Your task to perform on an android device: open app "DuckDuckGo Privacy Browser" (install if not already installed) and enter user name: "cleaving@outlook.com" and password: "freighters" Image 0: 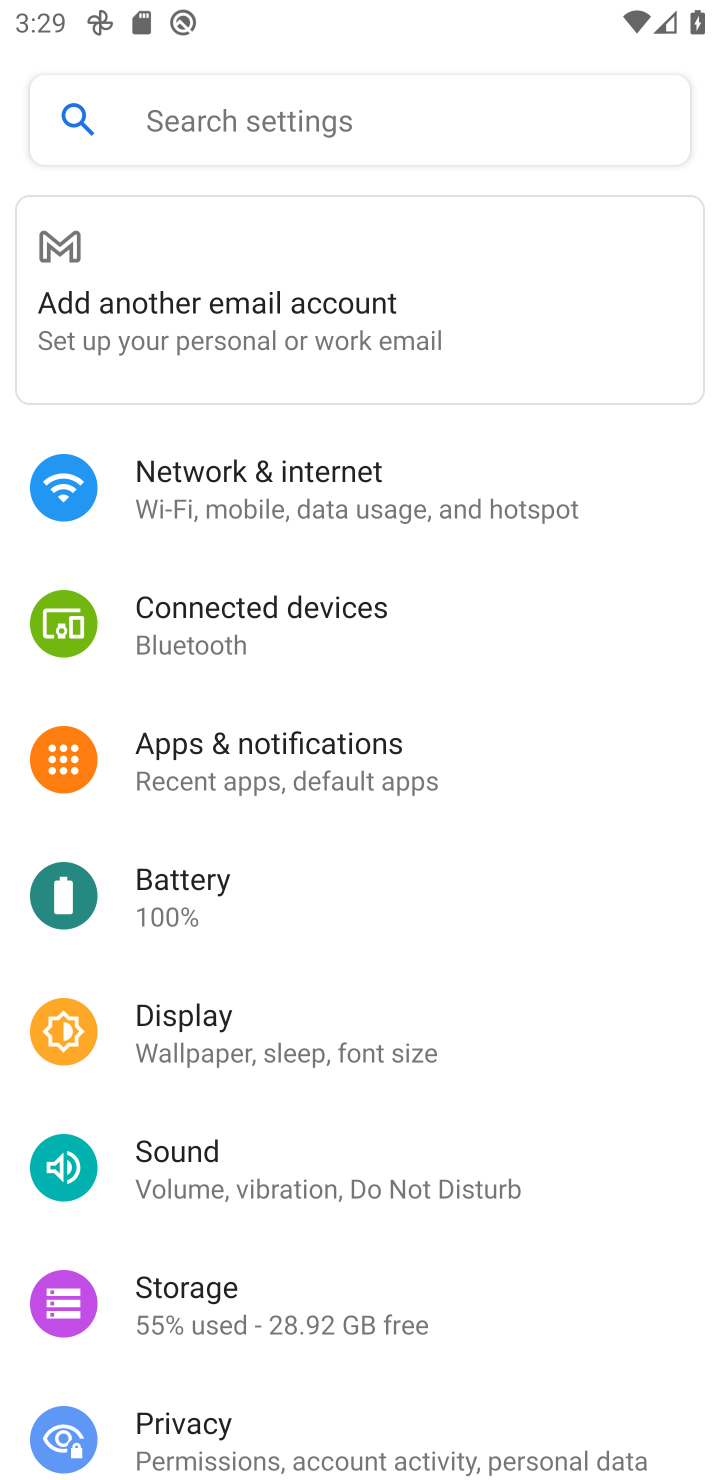
Step 0: press home button
Your task to perform on an android device: open app "DuckDuckGo Privacy Browser" (install if not already installed) and enter user name: "cleaving@outlook.com" and password: "freighters" Image 1: 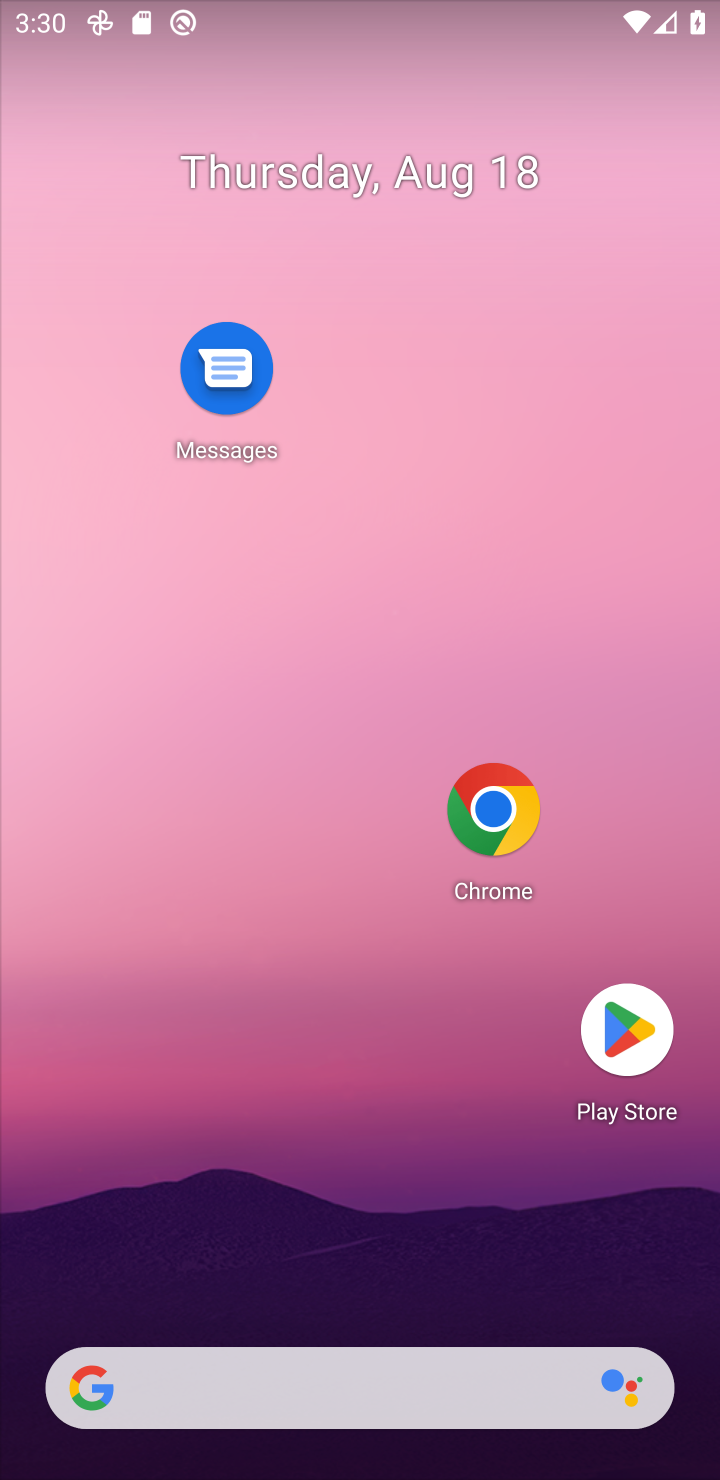
Step 1: click (590, 1041)
Your task to perform on an android device: open app "DuckDuckGo Privacy Browser" (install if not already installed) and enter user name: "cleaving@outlook.com" and password: "freighters" Image 2: 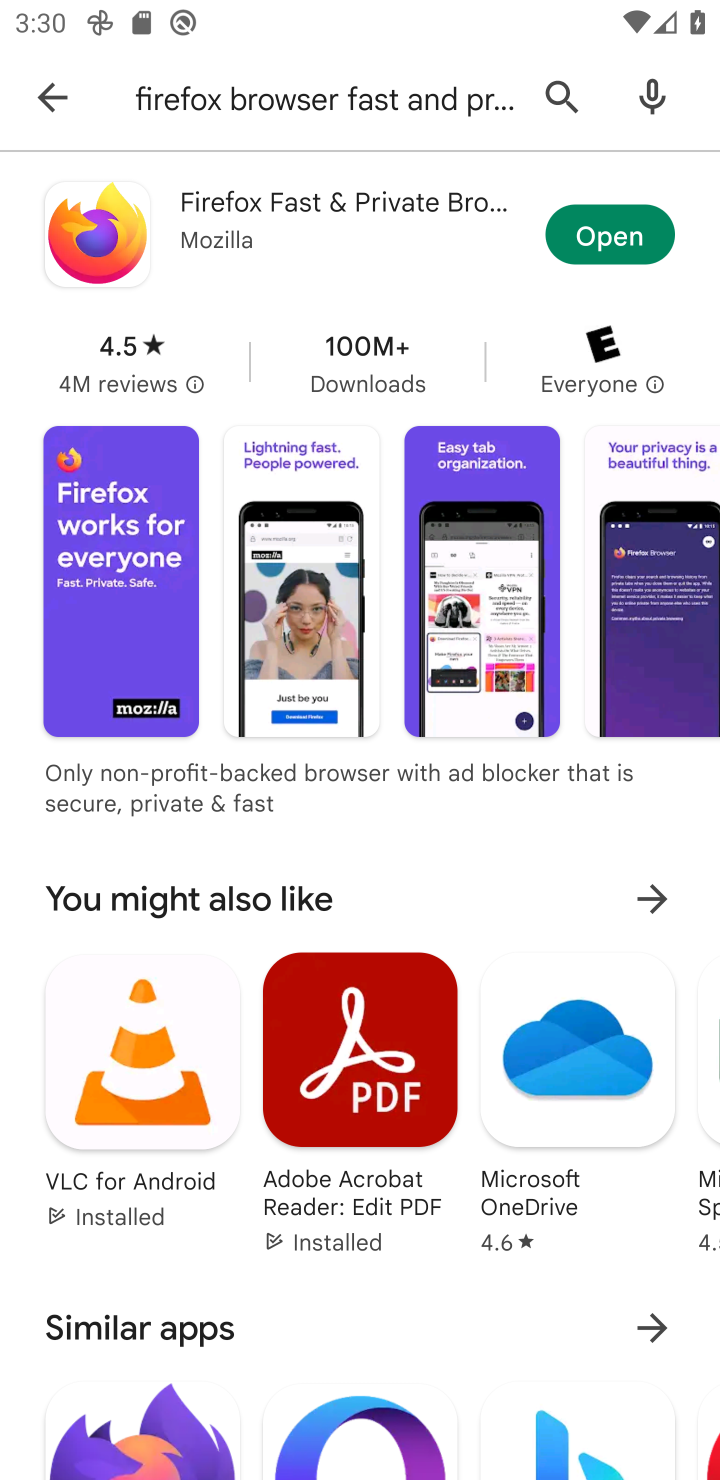
Step 2: click (554, 79)
Your task to perform on an android device: open app "DuckDuckGo Privacy Browser" (install if not already installed) and enter user name: "cleaving@outlook.com" and password: "freighters" Image 3: 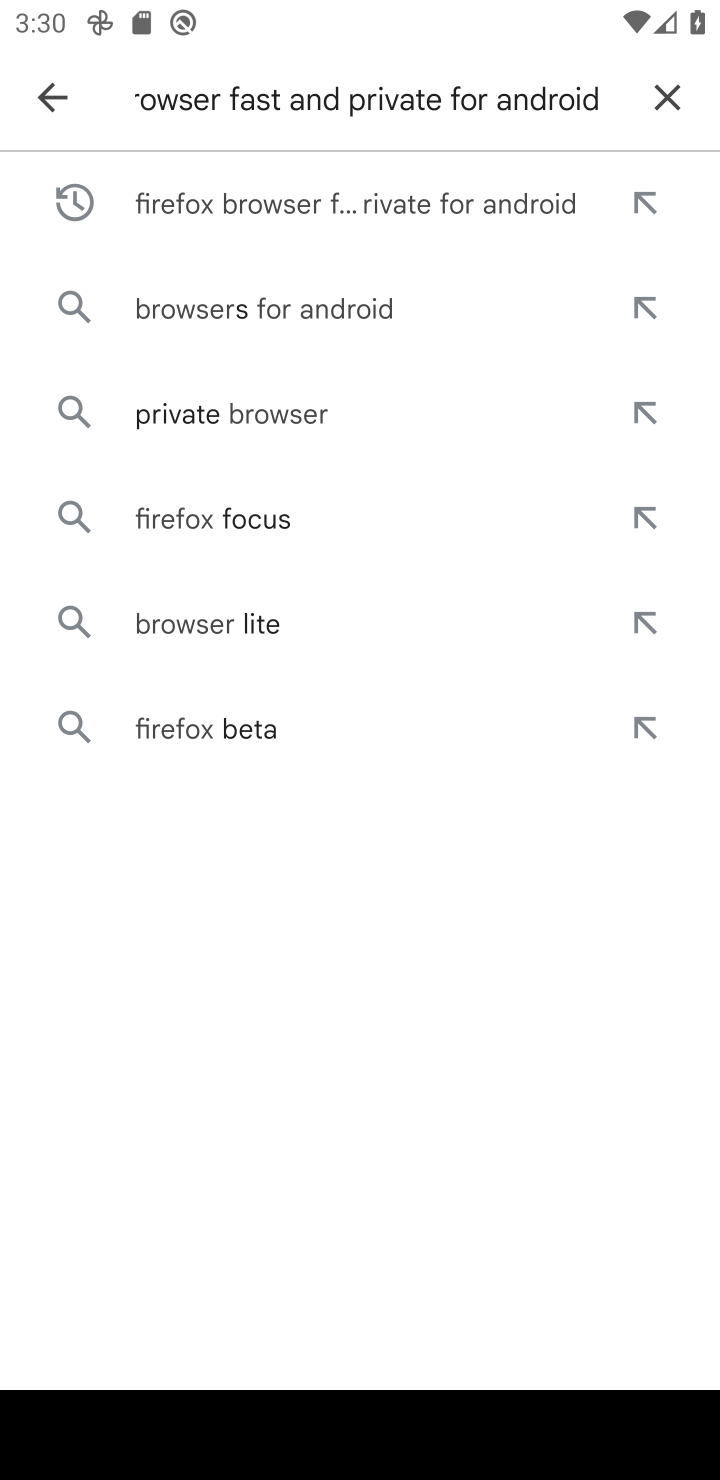
Step 3: click (680, 73)
Your task to perform on an android device: open app "DuckDuckGo Privacy Browser" (install if not already installed) and enter user name: "cleaving@outlook.com" and password: "freighters" Image 4: 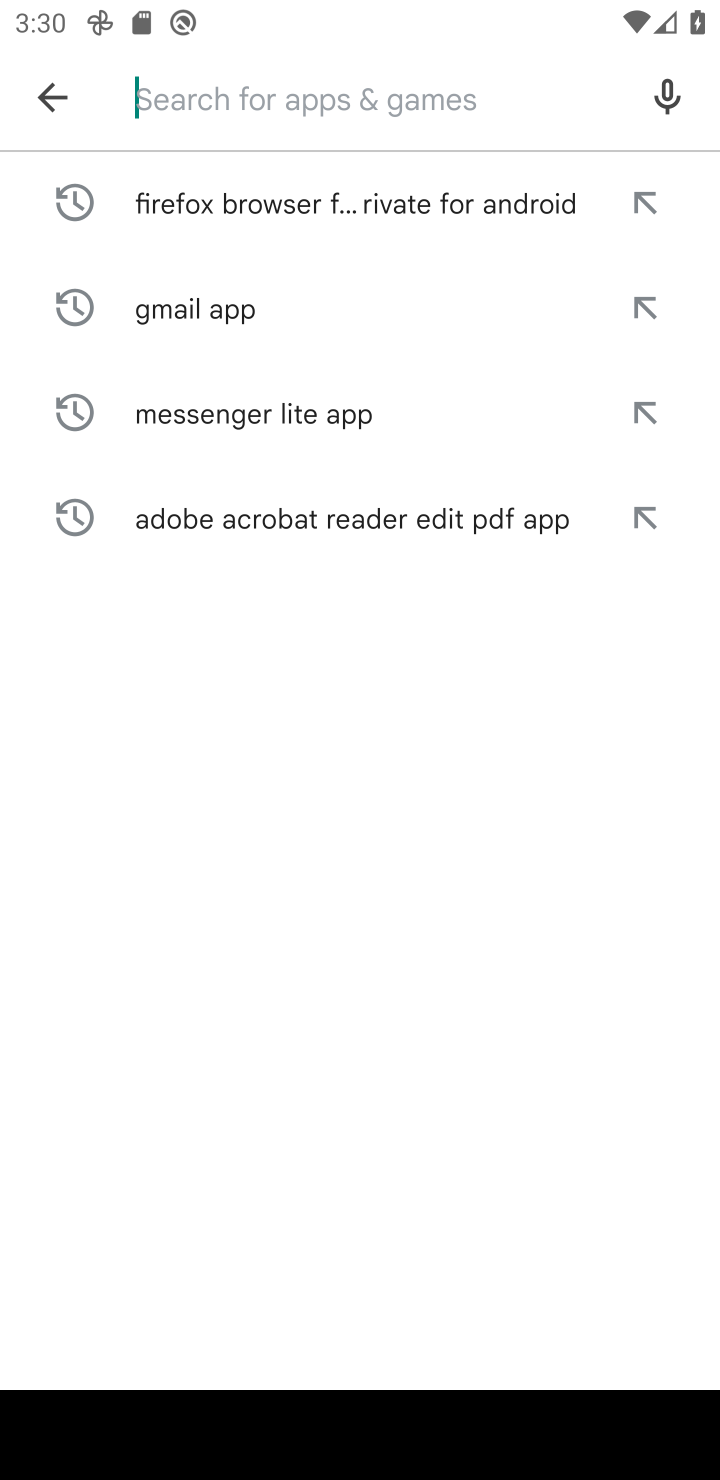
Step 4: click (296, 105)
Your task to perform on an android device: open app "DuckDuckGo Privacy Browser" (install if not already installed) and enter user name: "cleaving@outlook.com" and password: "freighters" Image 5: 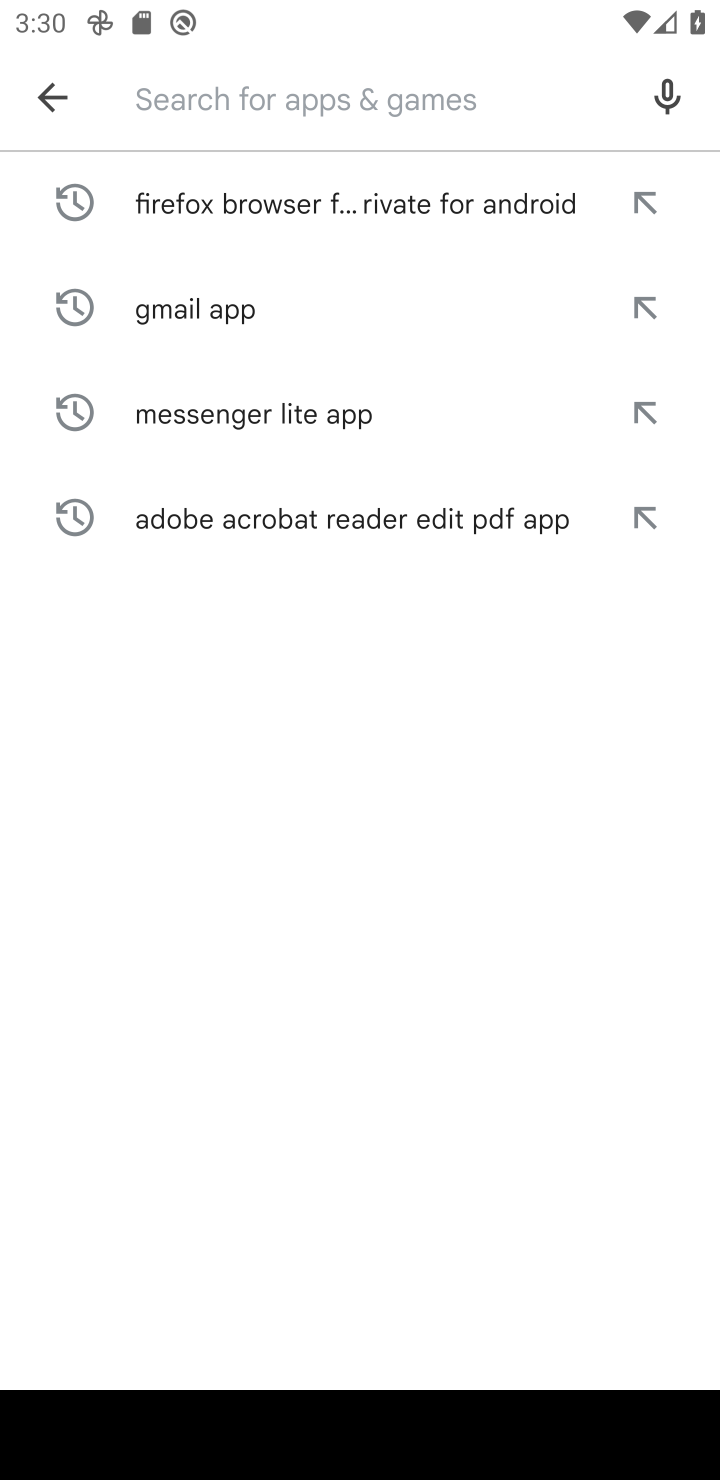
Step 5: type "DuckDuckGo Privacy Browser "
Your task to perform on an android device: open app "DuckDuckGo Privacy Browser" (install if not already installed) and enter user name: "cleaving@outlook.com" and password: "freighters" Image 6: 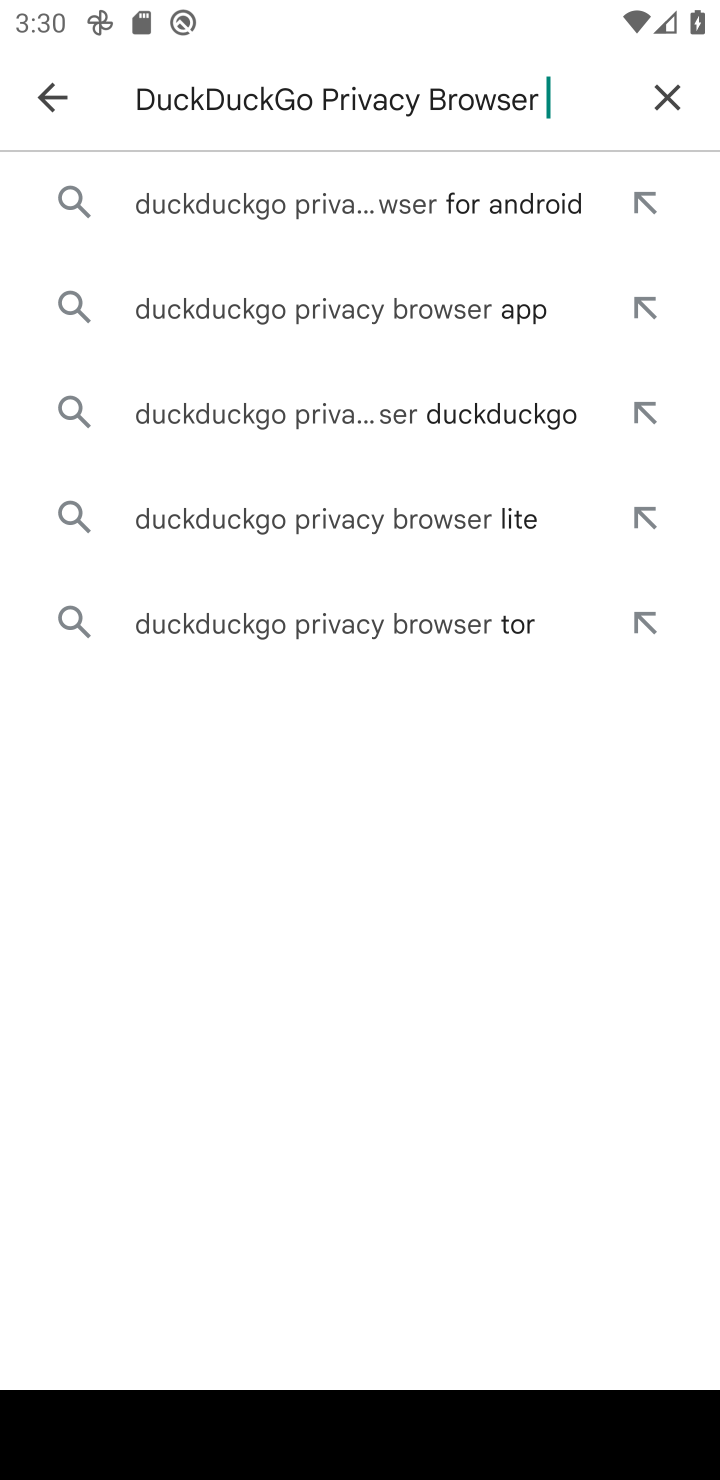
Step 6: click (318, 193)
Your task to perform on an android device: open app "DuckDuckGo Privacy Browser" (install if not already installed) and enter user name: "cleaving@outlook.com" and password: "freighters" Image 7: 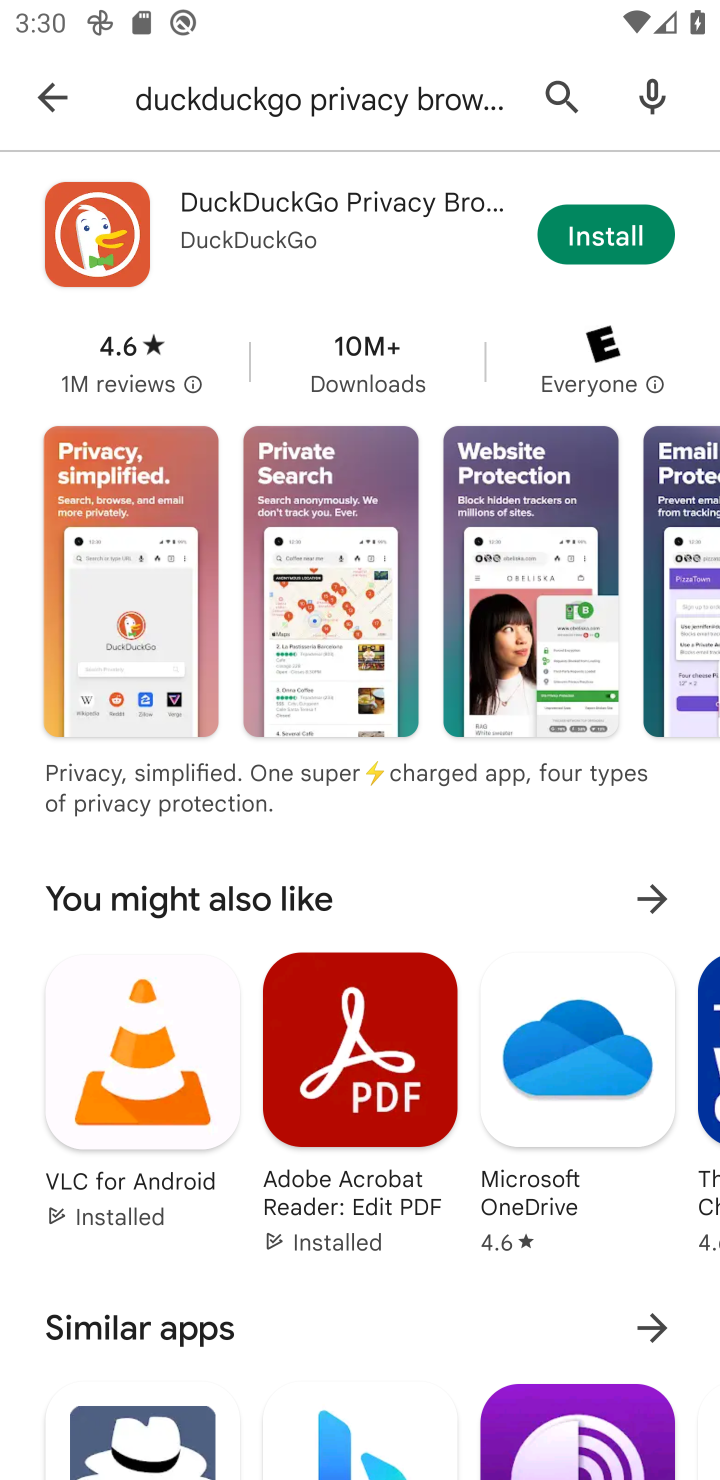
Step 7: click (612, 225)
Your task to perform on an android device: open app "DuckDuckGo Privacy Browser" (install if not already installed) and enter user name: "cleaving@outlook.com" and password: "freighters" Image 8: 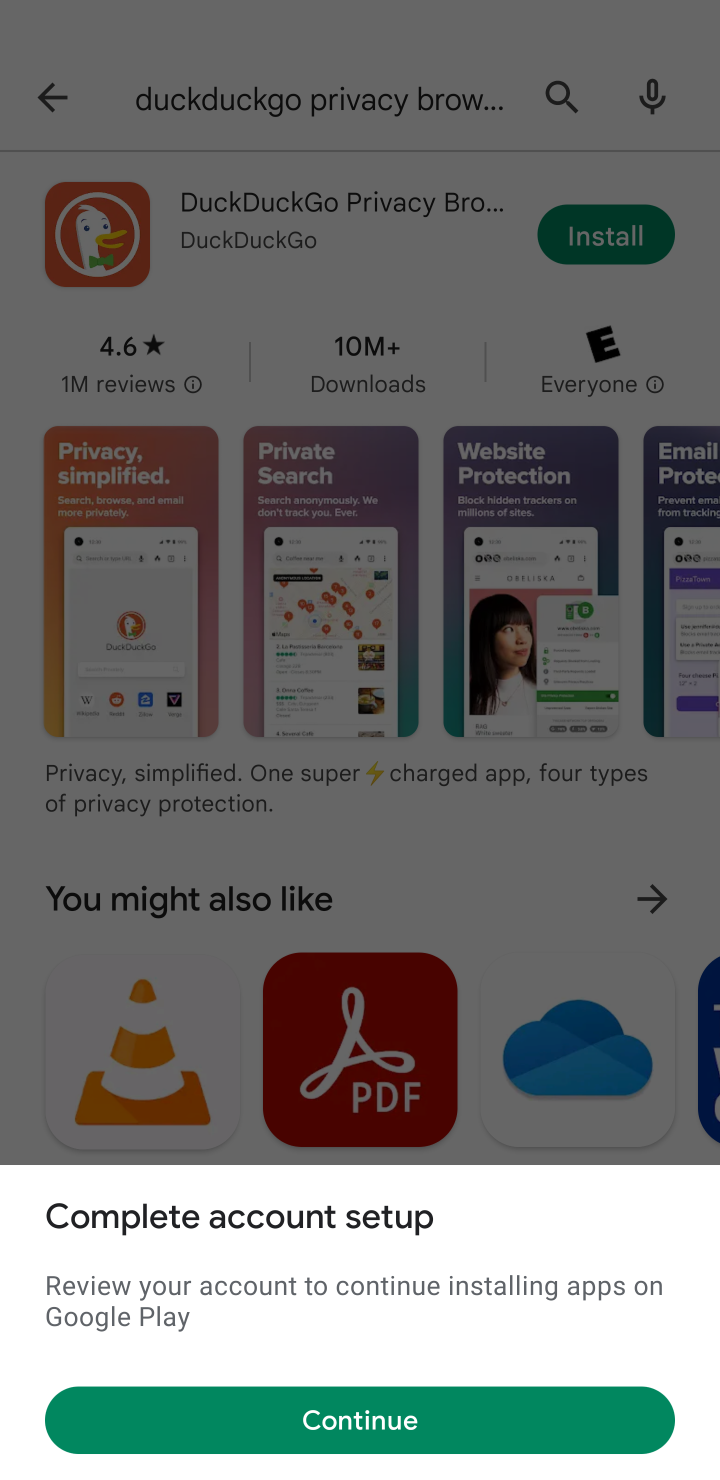
Step 8: task complete